Your task to perform on an android device: Go to Yahoo.com Image 0: 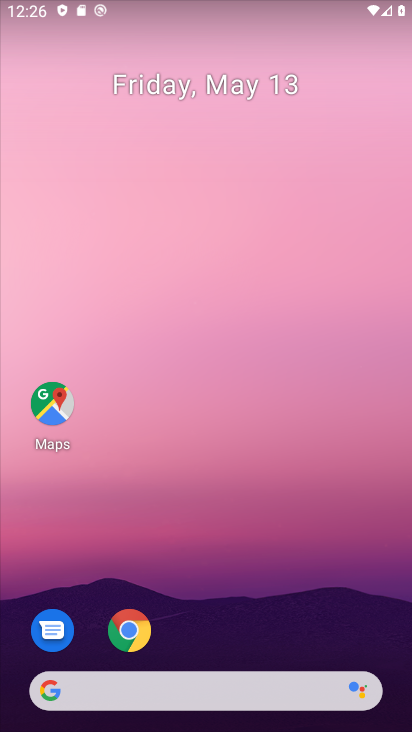
Step 0: drag from (251, 725) to (257, 290)
Your task to perform on an android device: Go to Yahoo.com Image 1: 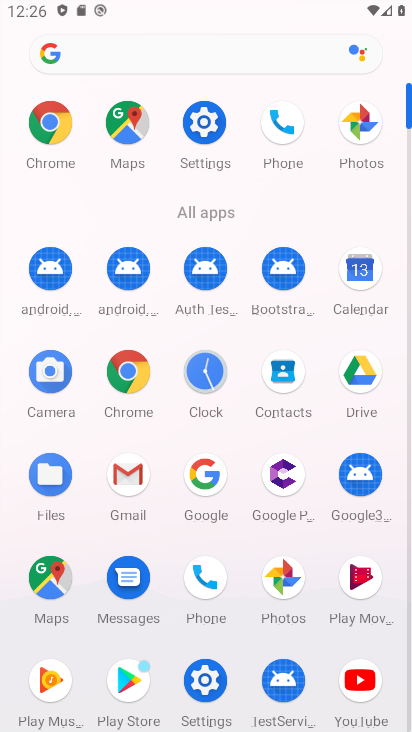
Step 1: click (63, 139)
Your task to perform on an android device: Go to Yahoo.com Image 2: 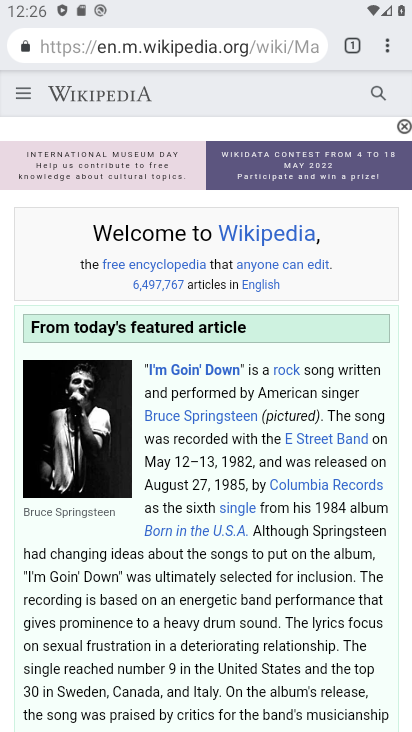
Step 2: click (339, 47)
Your task to perform on an android device: Go to Yahoo.com Image 3: 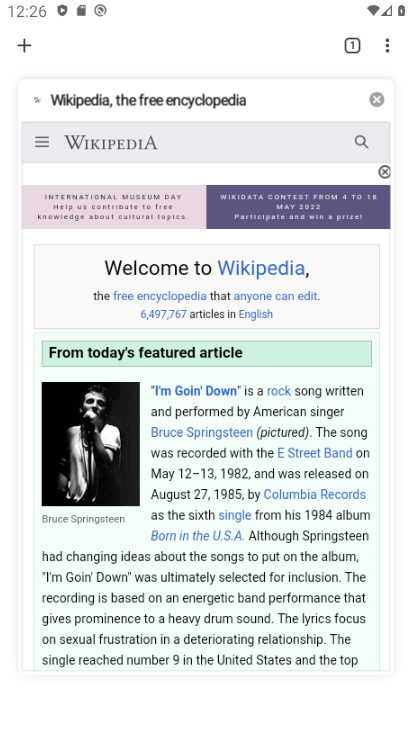
Step 3: click (23, 40)
Your task to perform on an android device: Go to Yahoo.com Image 4: 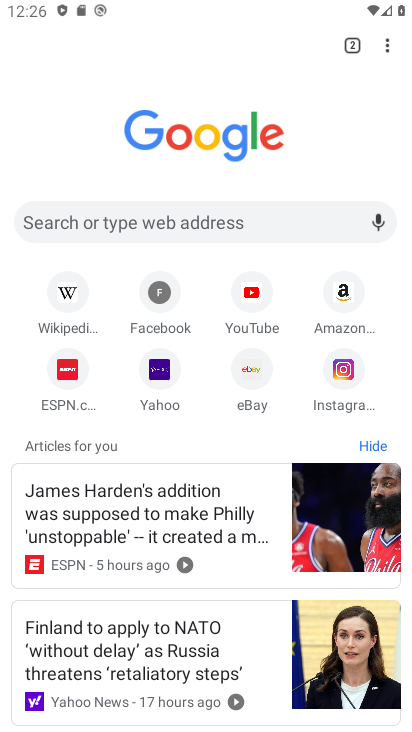
Step 4: click (159, 383)
Your task to perform on an android device: Go to Yahoo.com Image 5: 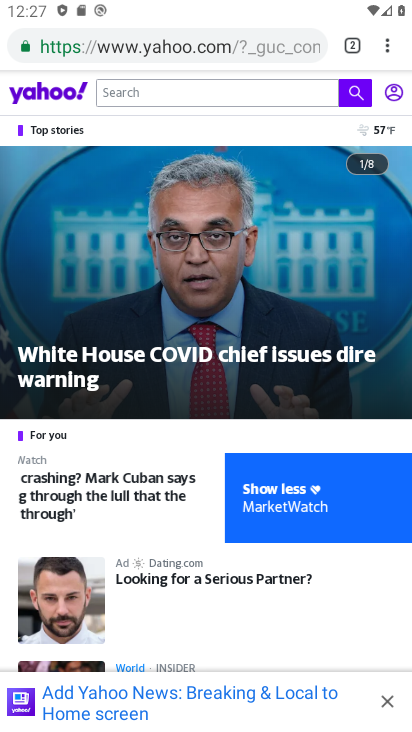
Step 5: task complete